Your task to perform on an android device: Go to location settings Image 0: 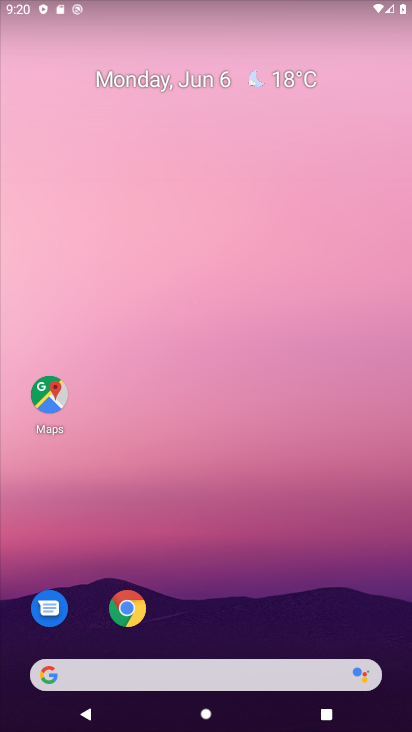
Step 0: drag from (295, 560) to (272, 16)
Your task to perform on an android device: Go to location settings Image 1: 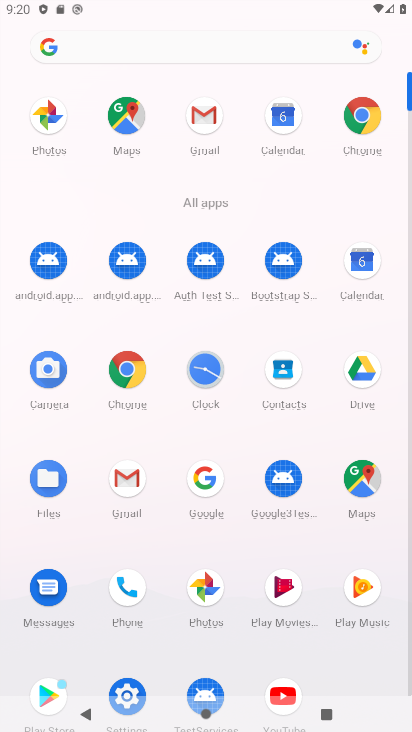
Step 1: click (126, 691)
Your task to perform on an android device: Go to location settings Image 2: 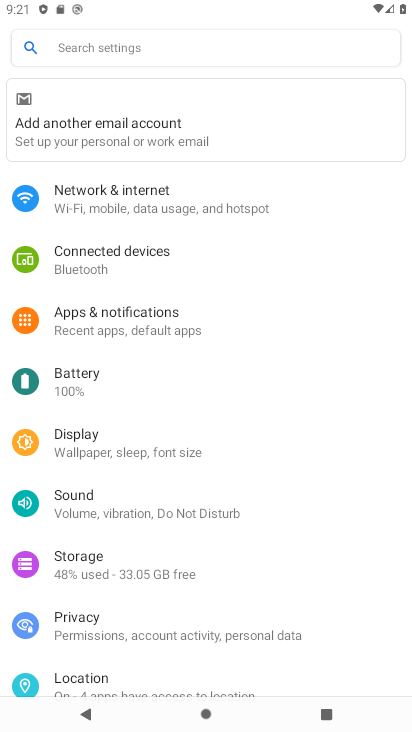
Step 2: drag from (168, 485) to (289, 278)
Your task to perform on an android device: Go to location settings Image 3: 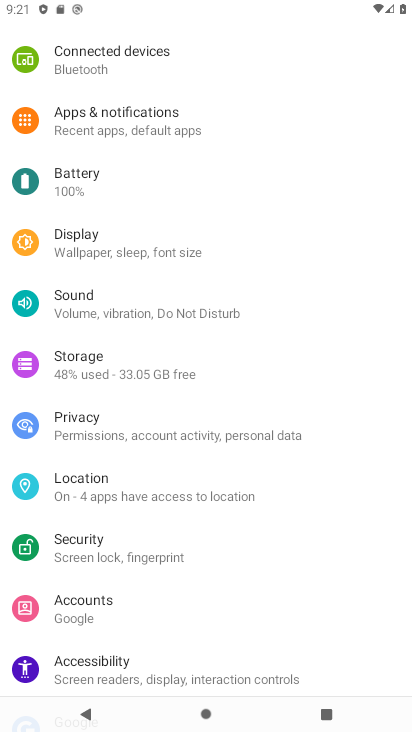
Step 3: click (154, 490)
Your task to perform on an android device: Go to location settings Image 4: 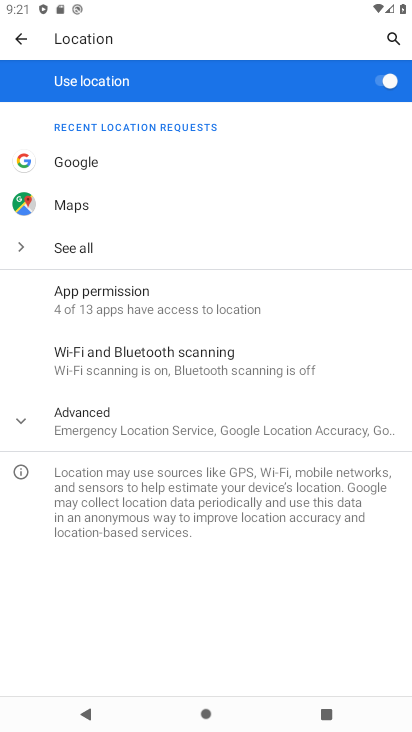
Step 4: task complete